Your task to perform on an android device: check storage Image 0: 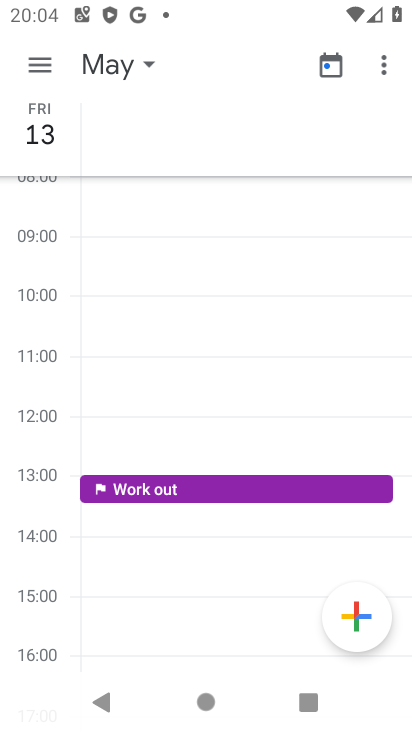
Step 0: press home button
Your task to perform on an android device: check storage Image 1: 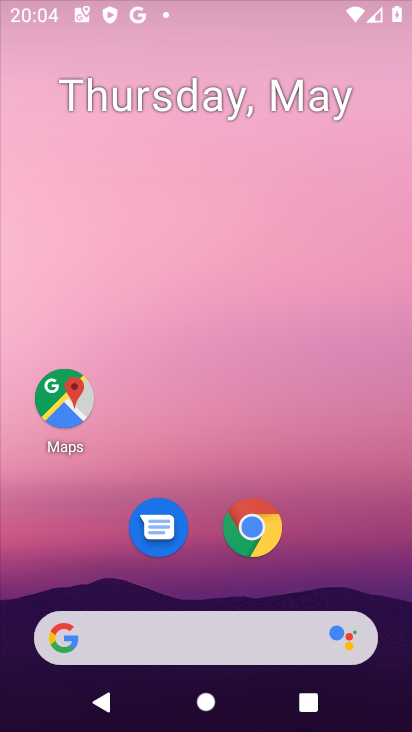
Step 1: drag from (50, 569) to (236, 233)
Your task to perform on an android device: check storage Image 2: 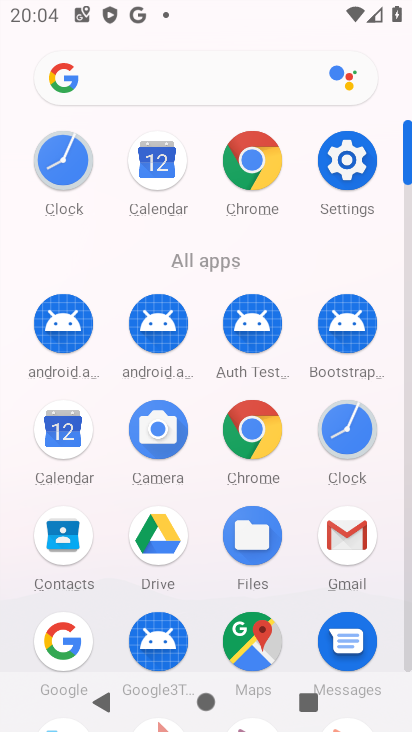
Step 2: click (342, 159)
Your task to perform on an android device: check storage Image 3: 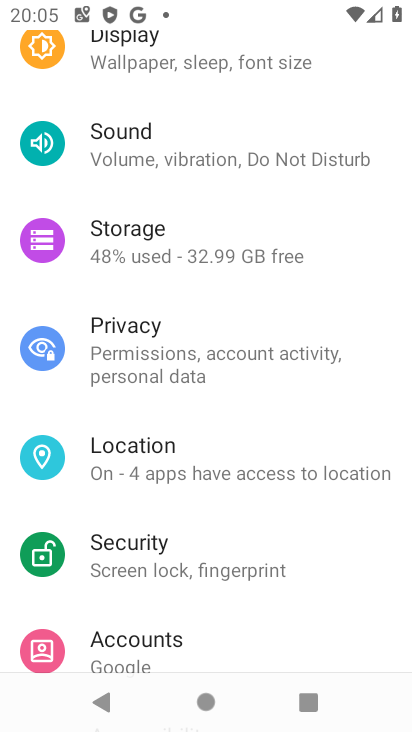
Step 3: click (217, 234)
Your task to perform on an android device: check storage Image 4: 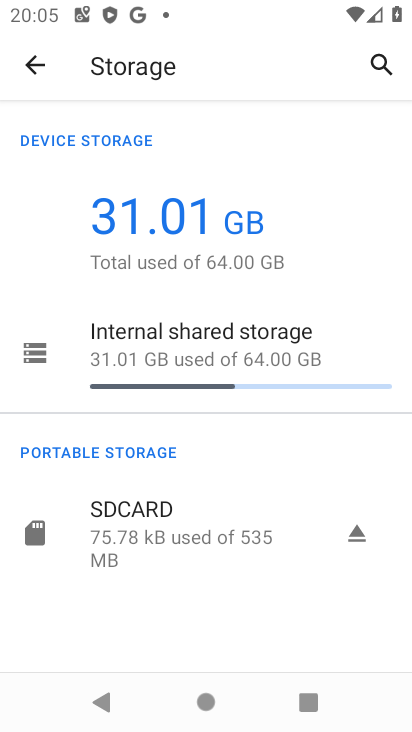
Step 4: task complete